Your task to perform on an android device: stop showing notifications on the lock screen Image 0: 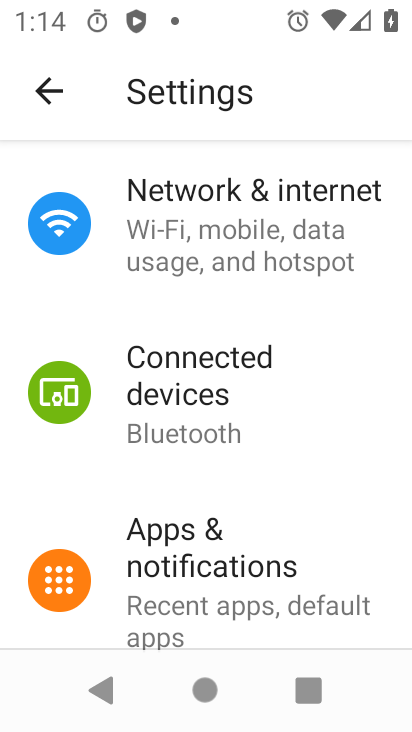
Step 0: click (225, 616)
Your task to perform on an android device: stop showing notifications on the lock screen Image 1: 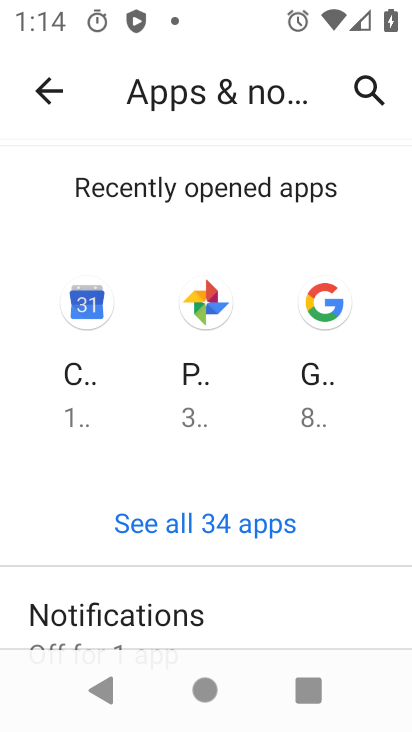
Step 1: drag from (125, 594) to (178, 145)
Your task to perform on an android device: stop showing notifications on the lock screen Image 2: 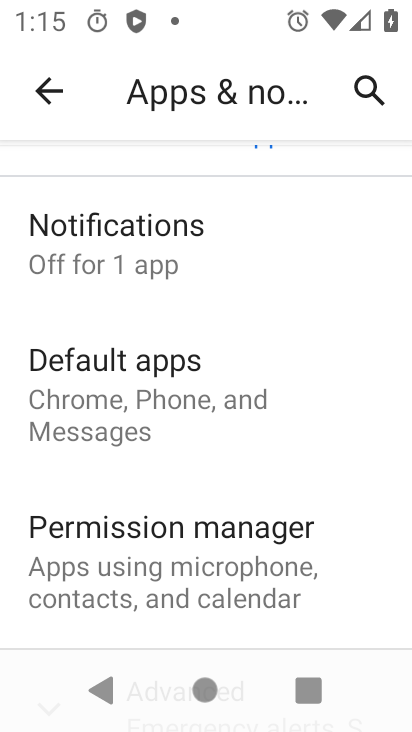
Step 2: click (152, 273)
Your task to perform on an android device: stop showing notifications on the lock screen Image 3: 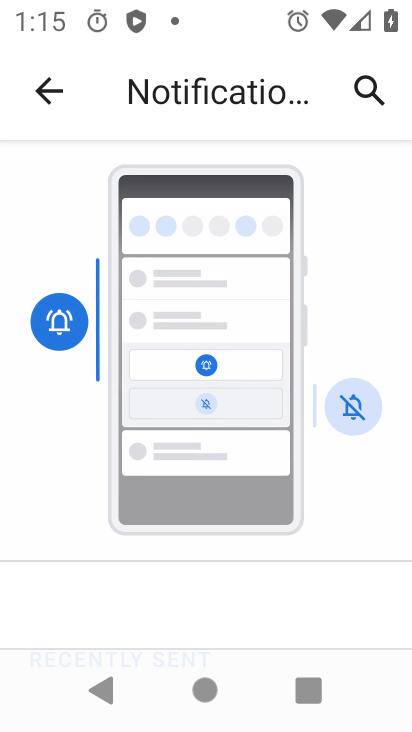
Step 3: drag from (113, 576) to (231, 129)
Your task to perform on an android device: stop showing notifications on the lock screen Image 4: 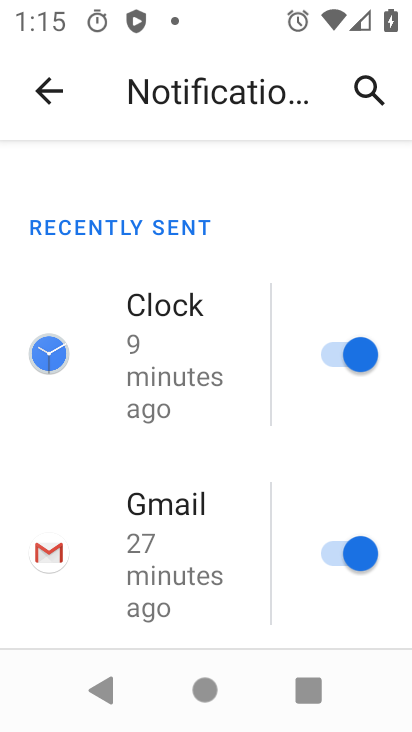
Step 4: drag from (188, 596) to (304, 127)
Your task to perform on an android device: stop showing notifications on the lock screen Image 5: 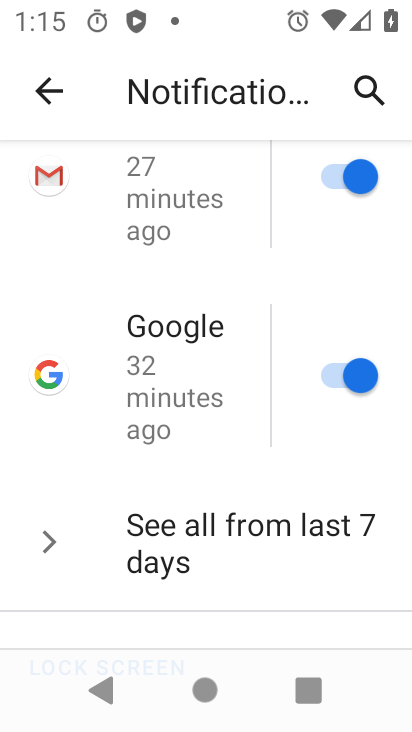
Step 5: drag from (227, 648) to (268, 224)
Your task to perform on an android device: stop showing notifications on the lock screen Image 6: 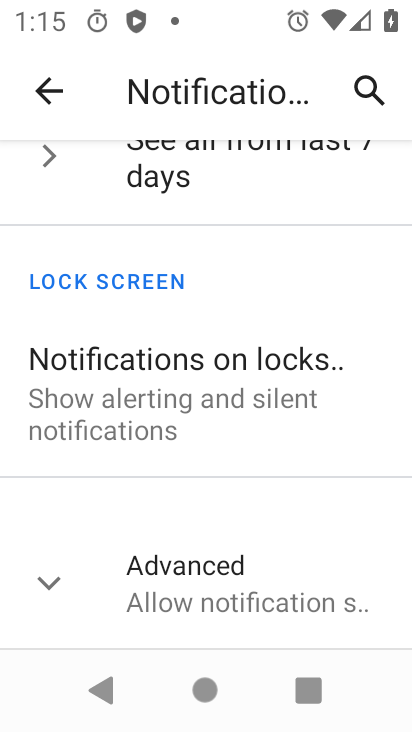
Step 6: click (217, 404)
Your task to perform on an android device: stop showing notifications on the lock screen Image 7: 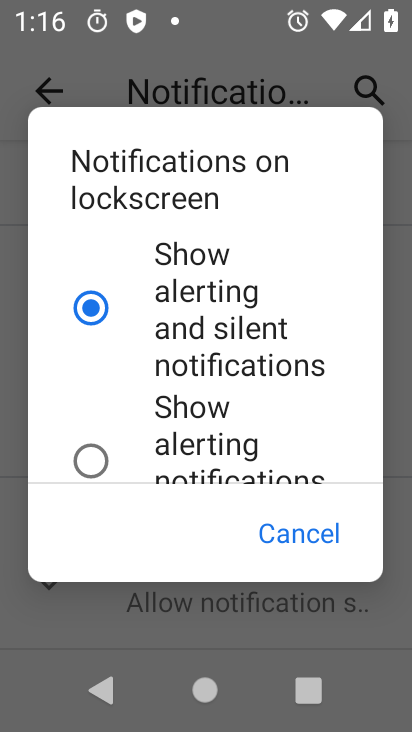
Step 7: drag from (156, 415) to (257, 27)
Your task to perform on an android device: stop showing notifications on the lock screen Image 8: 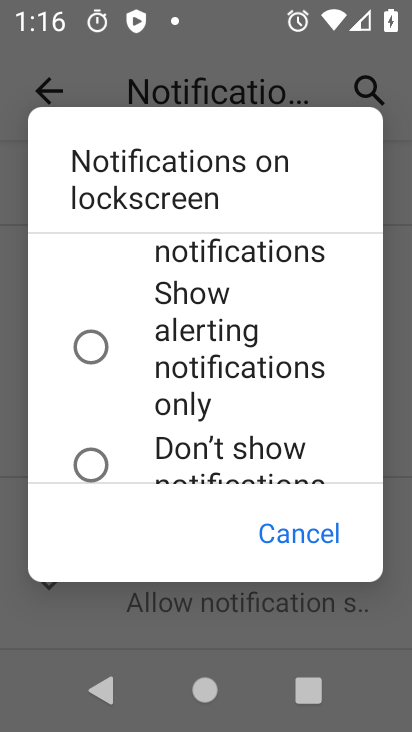
Step 8: click (117, 434)
Your task to perform on an android device: stop showing notifications on the lock screen Image 9: 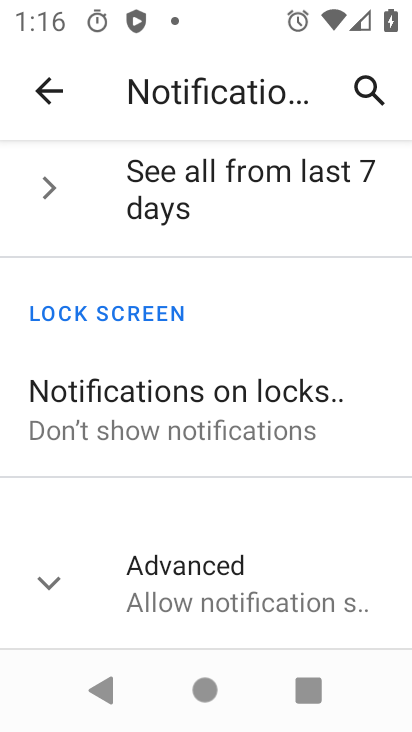
Step 9: task complete